Your task to perform on an android device: read, delete, or share a saved page in the chrome app Image 0: 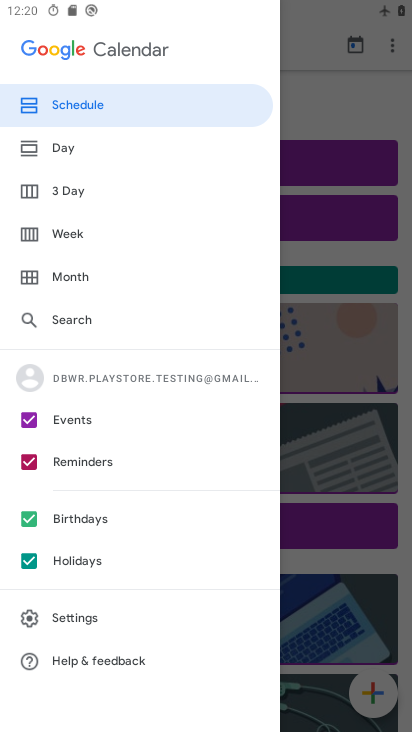
Step 0: press home button
Your task to perform on an android device: read, delete, or share a saved page in the chrome app Image 1: 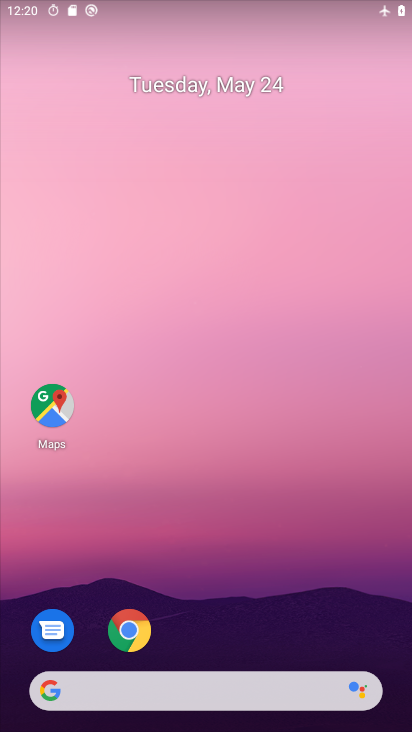
Step 1: drag from (218, 636) to (250, 24)
Your task to perform on an android device: read, delete, or share a saved page in the chrome app Image 2: 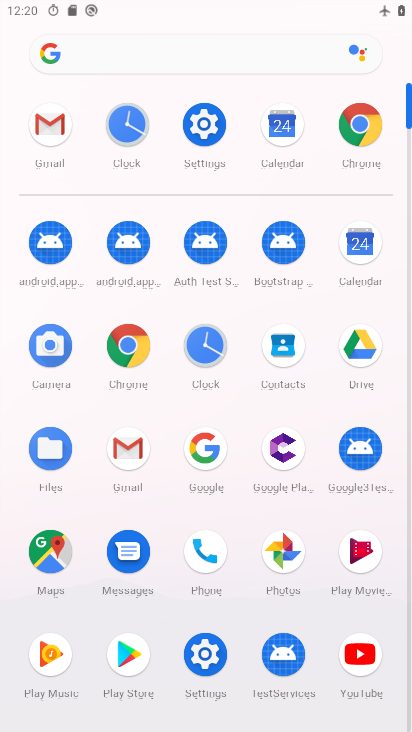
Step 2: click (361, 137)
Your task to perform on an android device: read, delete, or share a saved page in the chrome app Image 3: 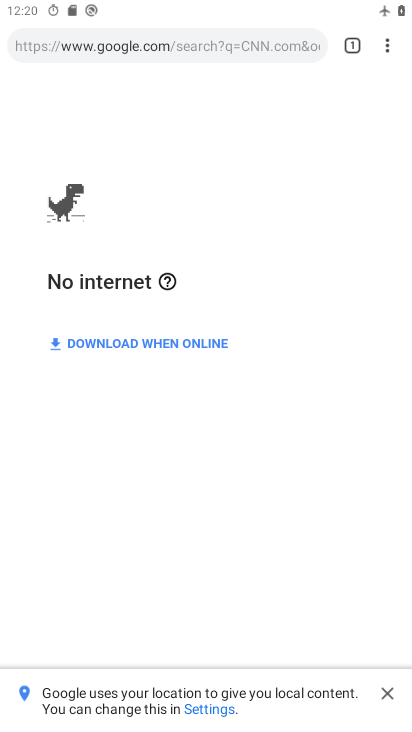
Step 3: click (386, 48)
Your task to perform on an android device: read, delete, or share a saved page in the chrome app Image 4: 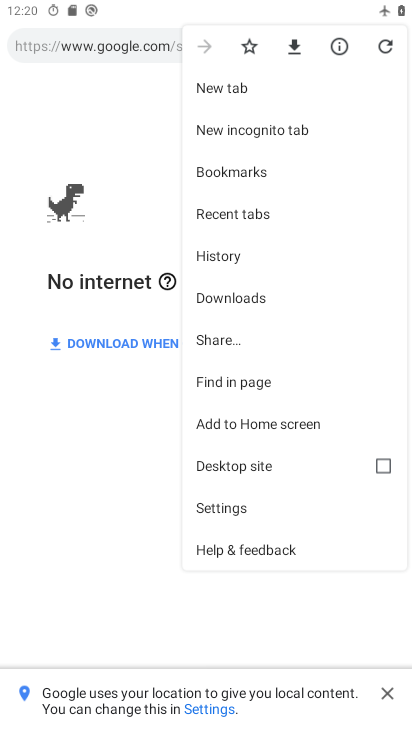
Step 4: click (244, 302)
Your task to perform on an android device: read, delete, or share a saved page in the chrome app Image 5: 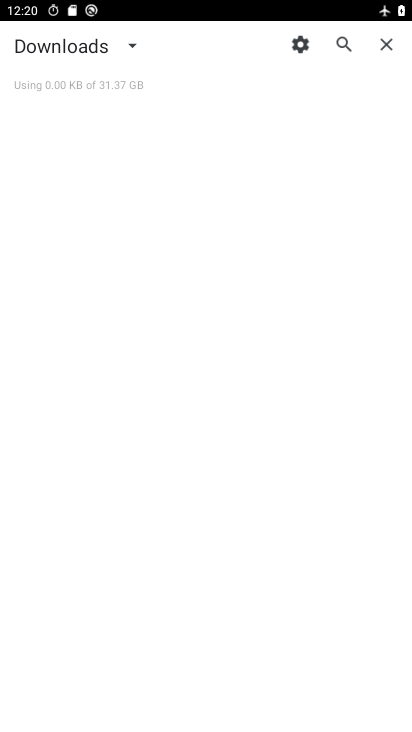
Step 5: task complete